Your task to perform on an android device: Nike Air Max 2020 shoes on Nike.com Image 0: 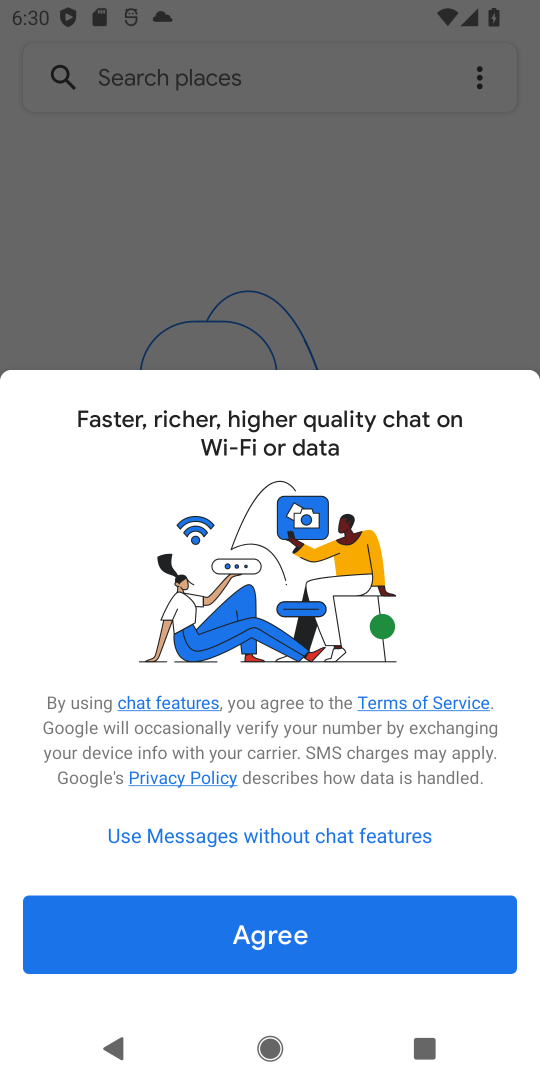
Step 0: press home button
Your task to perform on an android device: Nike Air Max 2020 shoes on Nike.com Image 1: 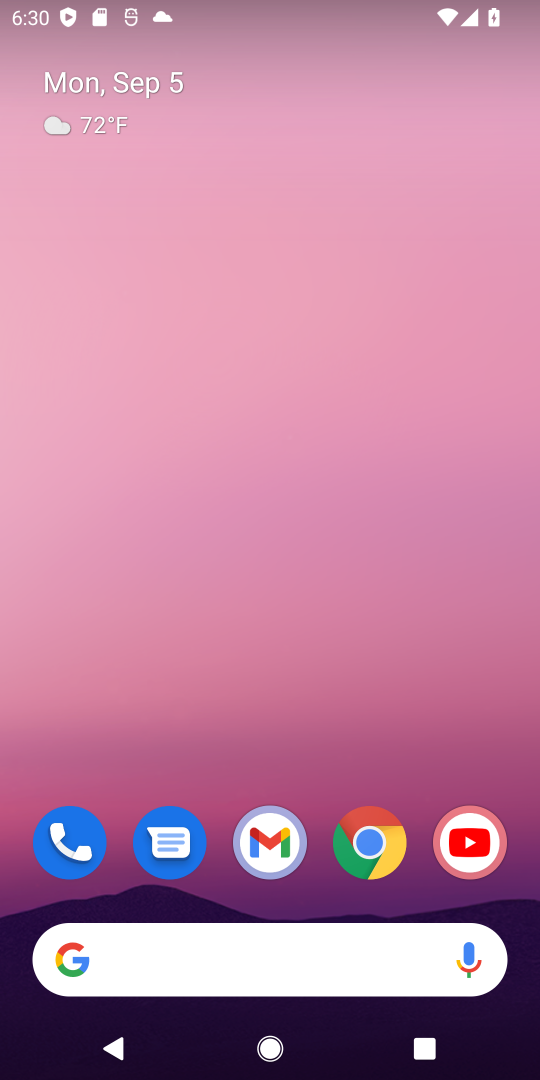
Step 1: click (375, 851)
Your task to perform on an android device: Nike Air Max 2020 shoes on Nike.com Image 2: 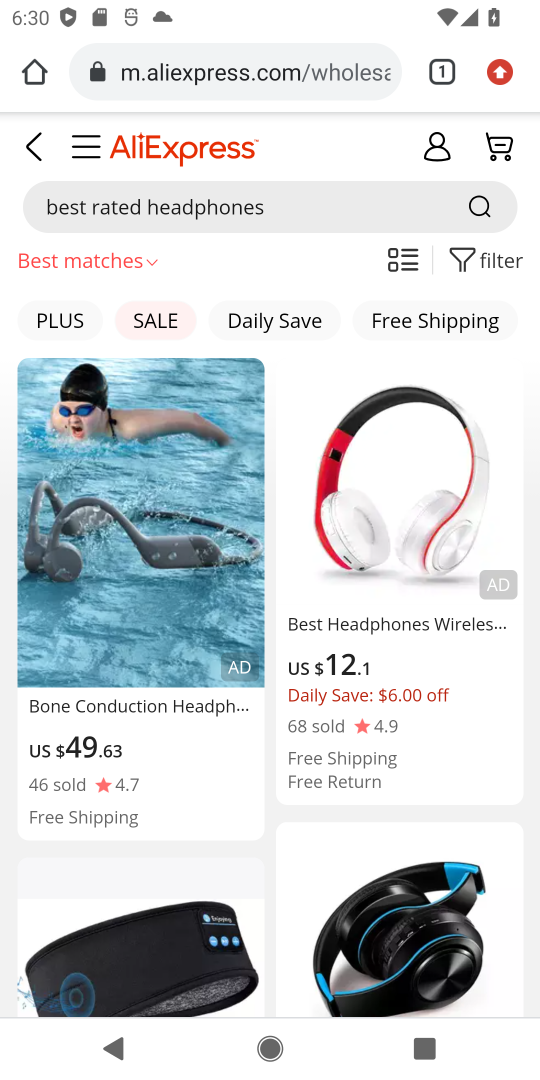
Step 2: click (385, 78)
Your task to perform on an android device: Nike Air Max 2020 shoes on Nike.com Image 3: 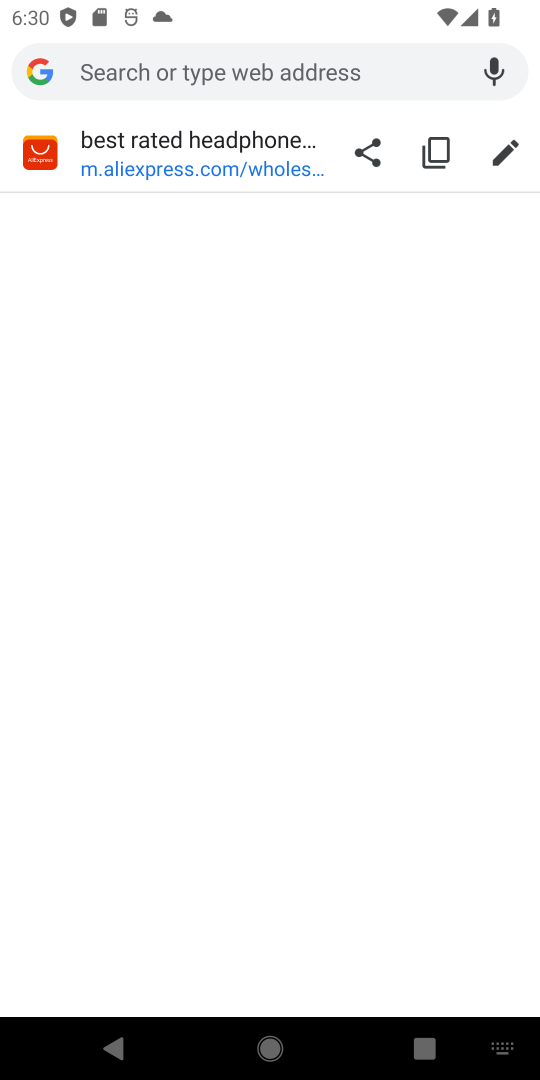
Step 3: type "Nike.com"
Your task to perform on an android device: Nike Air Max 2020 shoes on Nike.com Image 4: 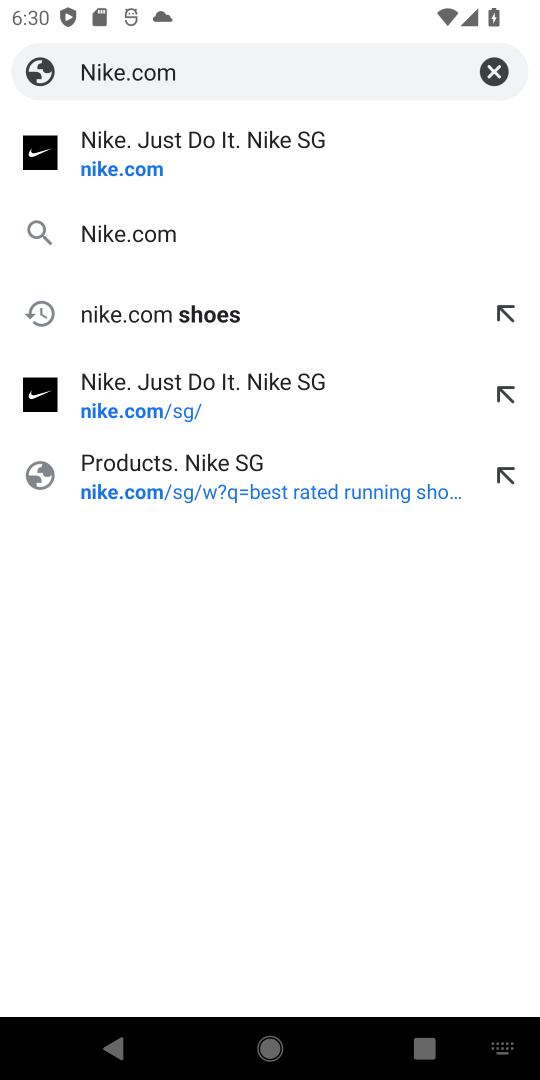
Step 4: click (143, 236)
Your task to perform on an android device: Nike Air Max 2020 shoes on Nike.com Image 5: 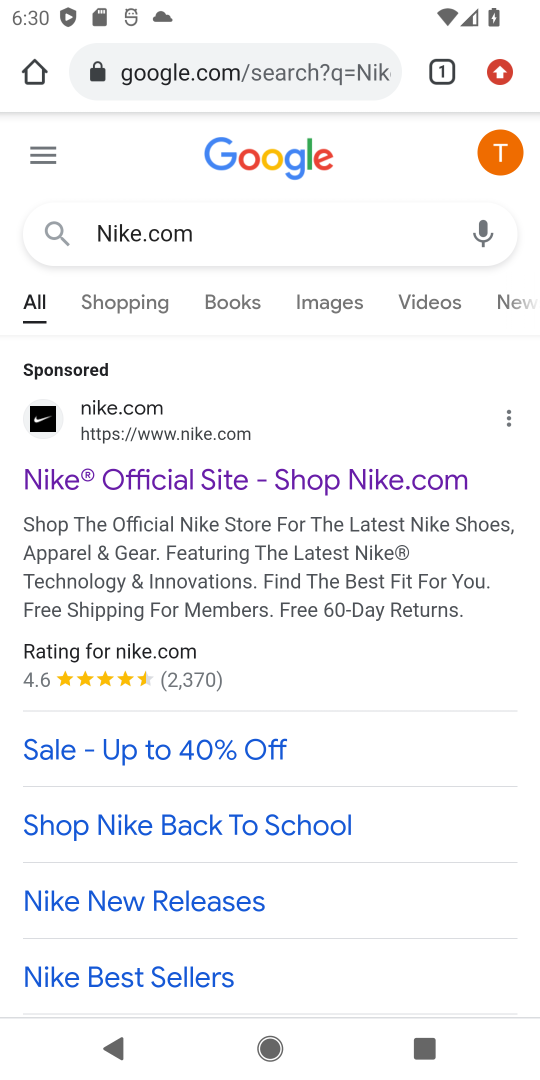
Step 5: click (167, 439)
Your task to perform on an android device: Nike Air Max 2020 shoes on Nike.com Image 6: 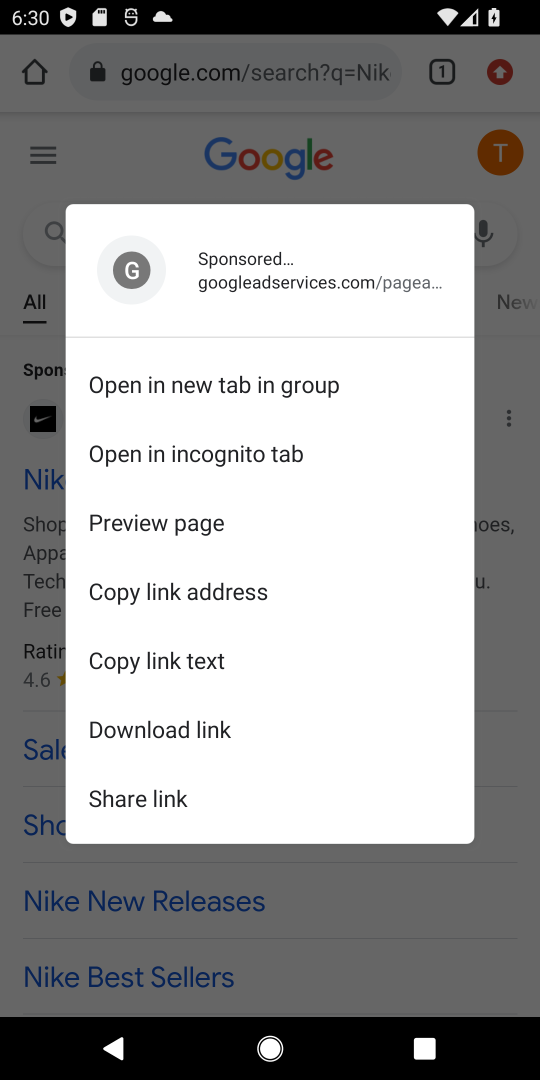
Step 6: click (115, 178)
Your task to perform on an android device: Nike Air Max 2020 shoes on Nike.com Image 7: 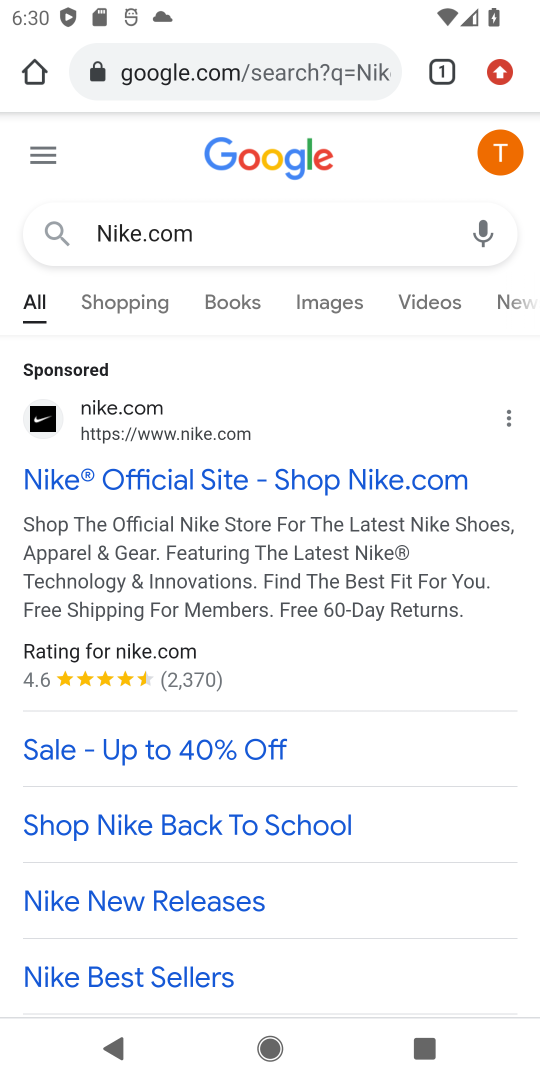
Step 7: click (211, 490)
Your task to perform on an android device: Nike Air Max 2020 shoes on Nike.com Image 8: 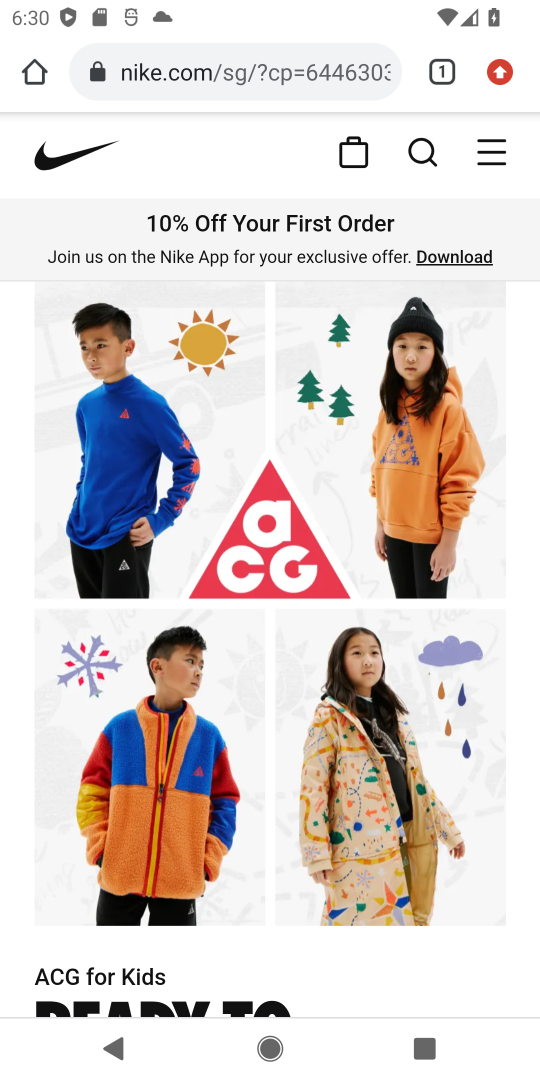
Step 8: click (424, 147)
Your task to perform on an android device: Nike Air Max 2020 shoes on Nike.com Image 9: 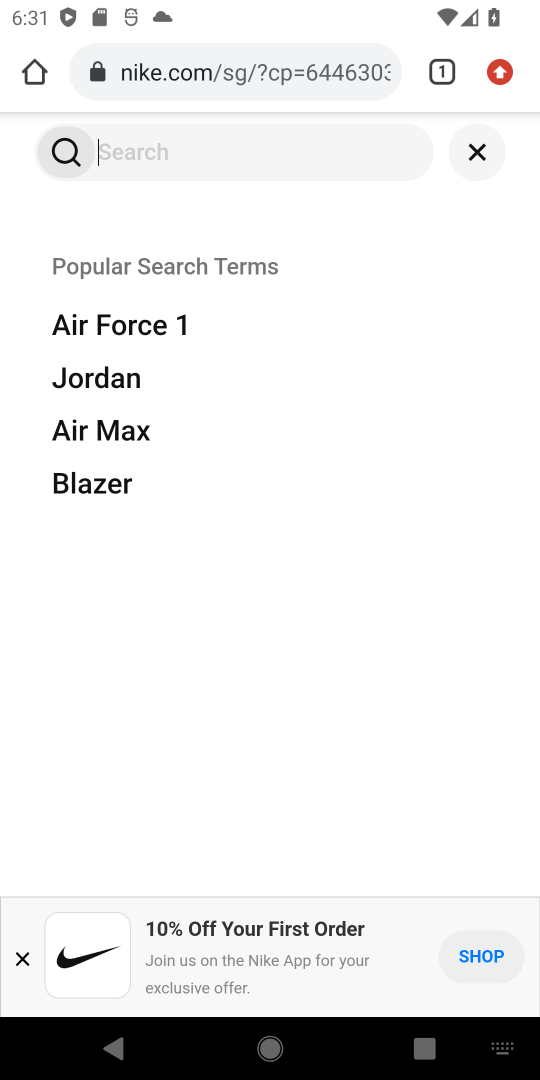
Step 9: type "Nike Air Max 2020 shoes"
Your task to perform on an android device: Nike Air Max 2020 shoes on Nike.com Image 10: 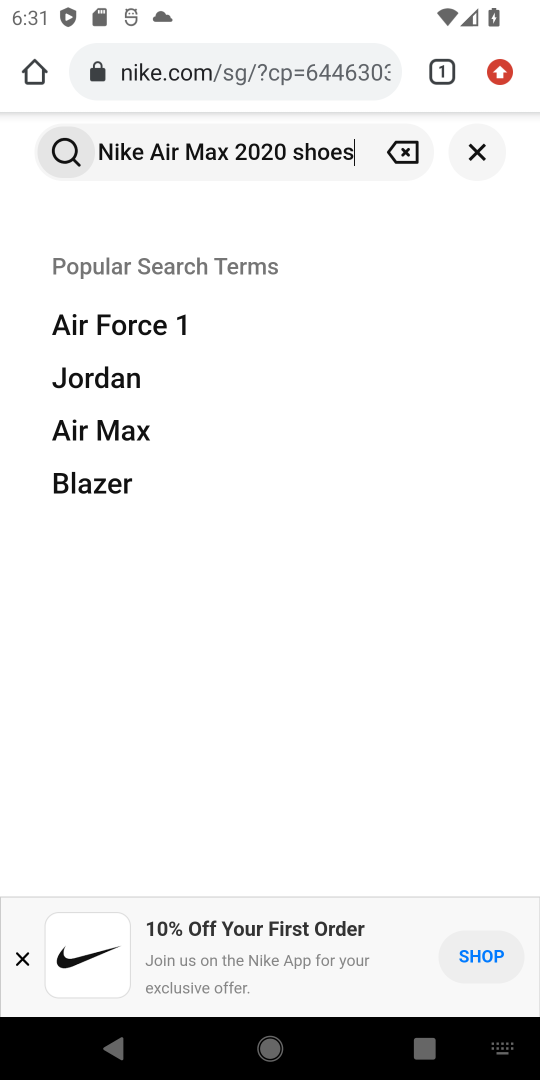
Step 10: click (67, 161)
Your task to perform on an android device: Nike Air Max 2020 shoes on Nike.com Image 11: 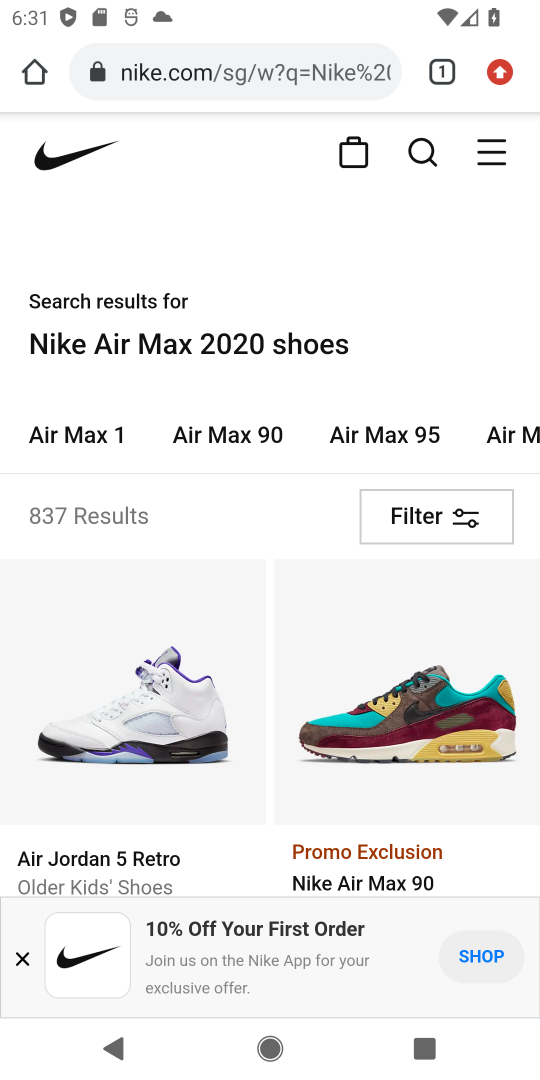
Step 11: task complete